Your task to perform on an android device: toggle notifications settings in the gmail app Image 0: 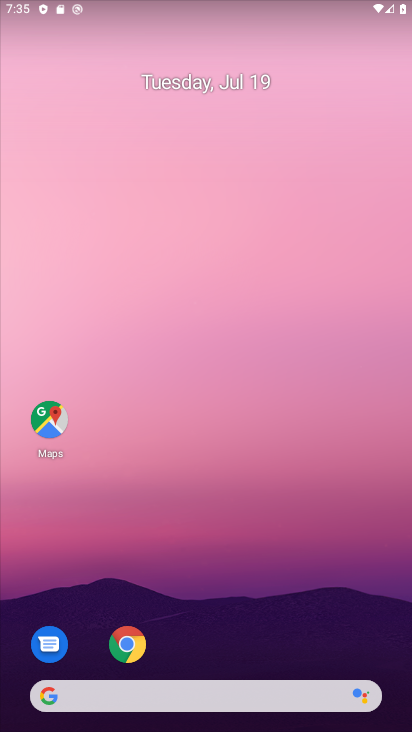
Step 0: drag from (263, 638) to (184, 248)
Your task to perform on an android device: toggle notifications settings in the gmail app Image 1: 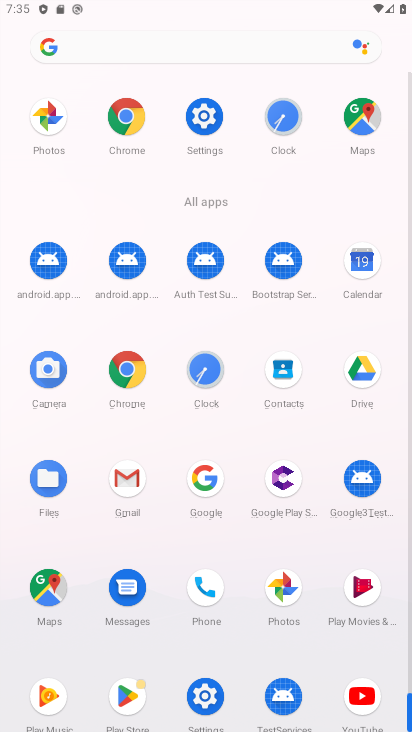
Step 1: click (124, 479)
Your task to perform on an android device: toggle notifications settings in the gmail app Image 2: 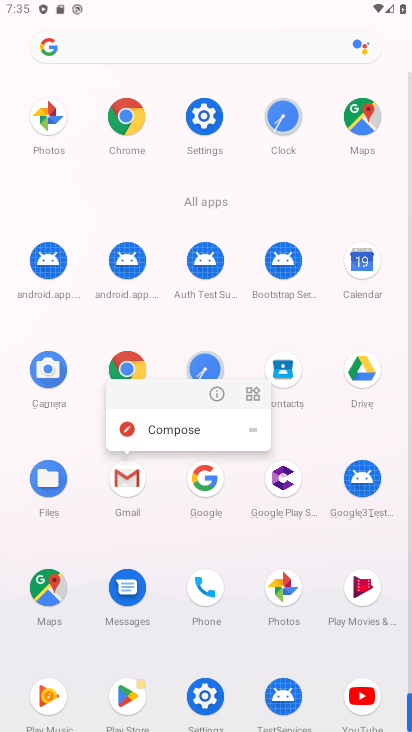
Step 2: click (125, 484)
Your task to perform on an android device: toggle notifications settings in the gmail app Image 3: 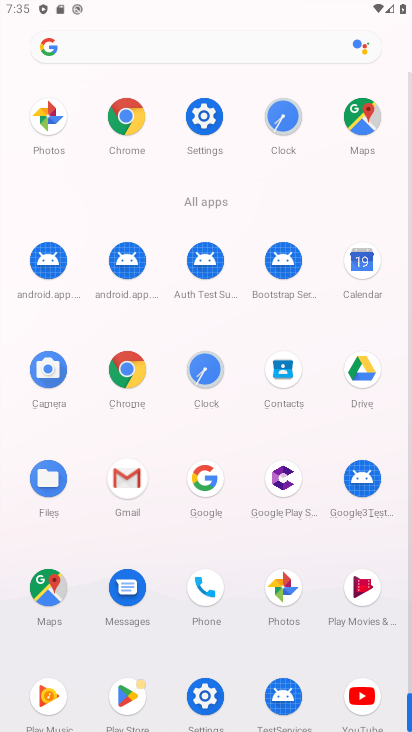
Step 3: click (125, 484)
Your task to perform on an android device: toggle notifications settings in the gmail app Image 4: 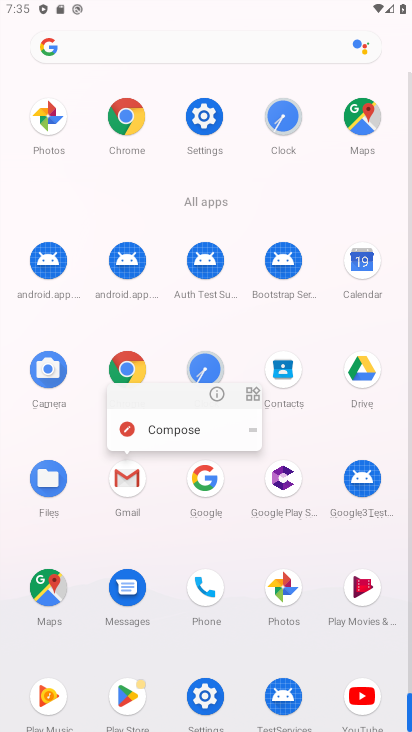
Step 4: click (123, 484)
Your task to perform on an android device: toggle notifications settings in the gmail app Image 5: 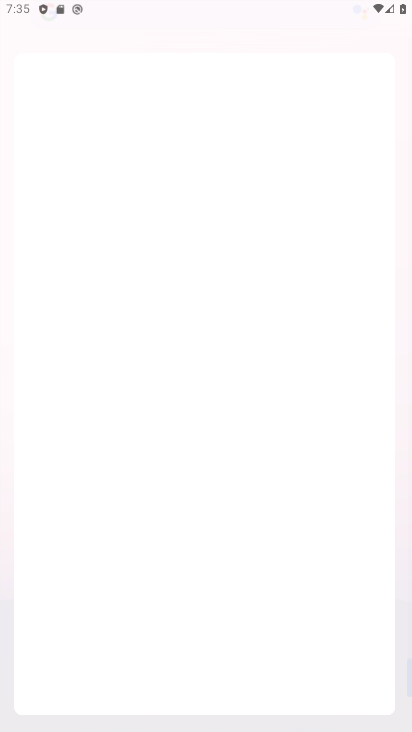
Step 5: click (123, 483)
Your task to perform on an android device: toggle notifications settings in the gmail app Image 6: 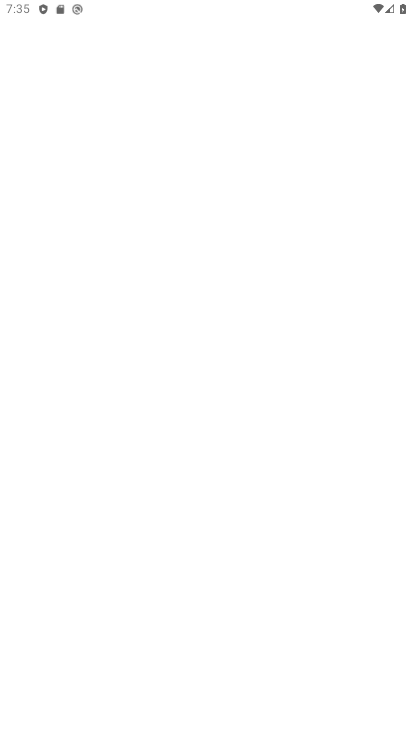
Step 6: click (122, 481)
Your task to perform on an android device: toggle notifications settings in the gmail app Image 7: 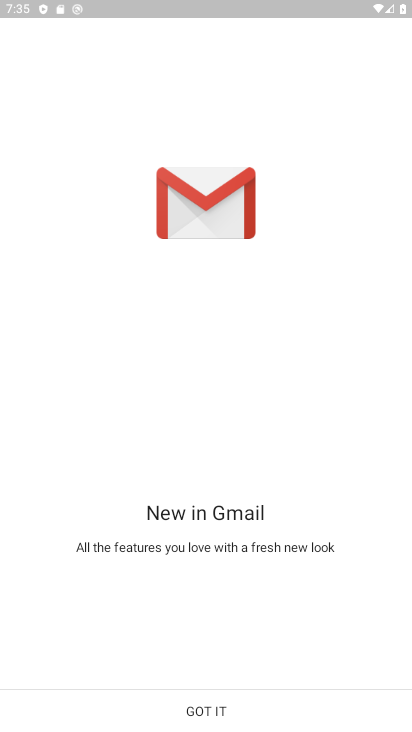
Step 7: click (227, 698)
Your task to perform on an android device: toggle notifications settings in the gmail app Image 8: 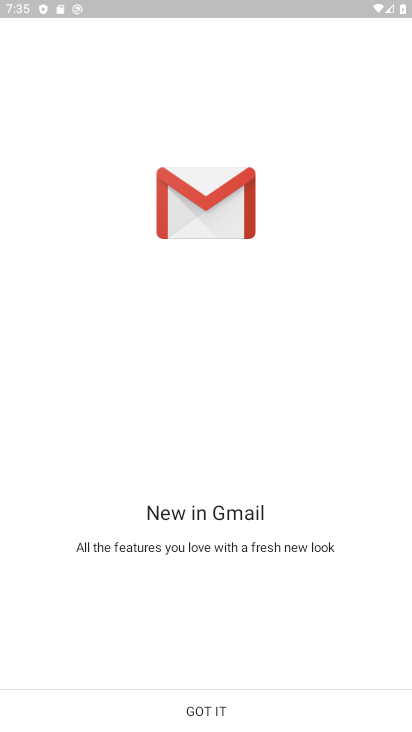
Step 8: click (227, 698)
Your task to perform on an android device: toggle notifications settings in the gmail app Image 9: 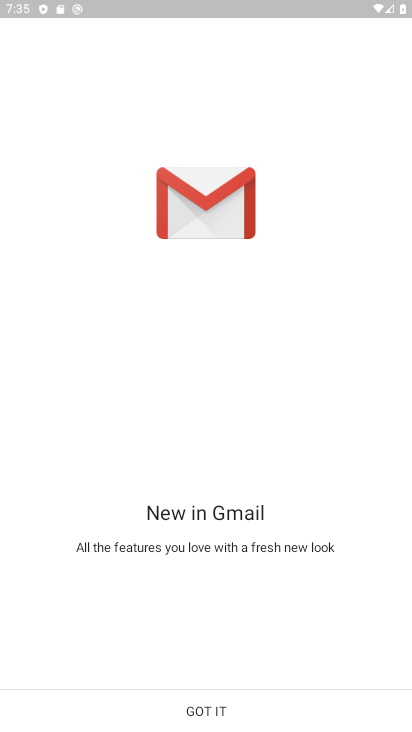
Step 9: click (227, 701)
Your task to perform on an android device: toggle notifications settings in the gmail app Image 10: 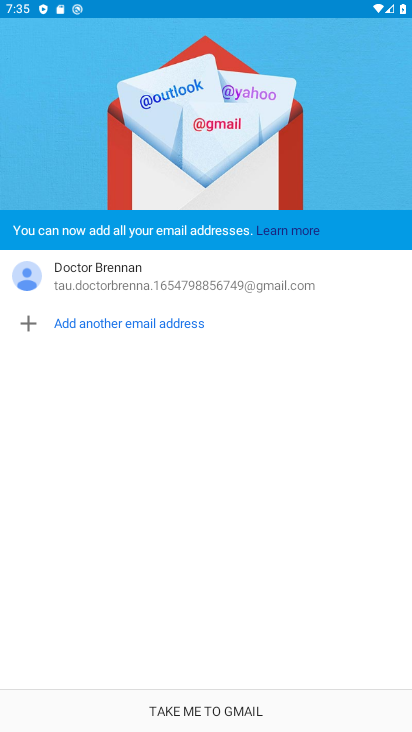
Step 10: click (233, 701)
Your task to perform on an android device: toggle notifications settings in the gmail app Image 11: 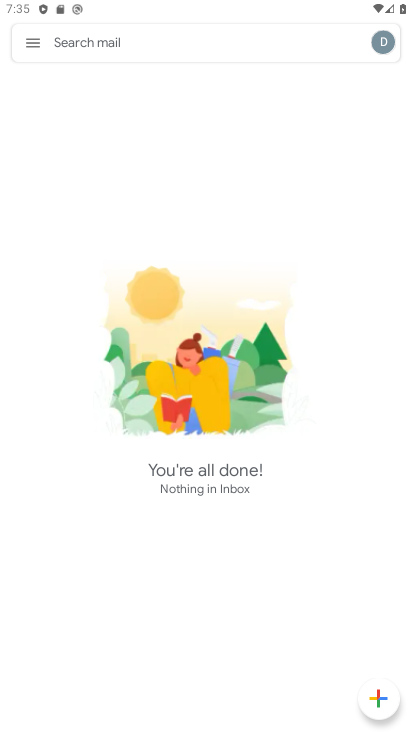
Step 11: click (30, 49)
Your task to perform on an android device: toggle notifications settings in the gmail app Image 12: 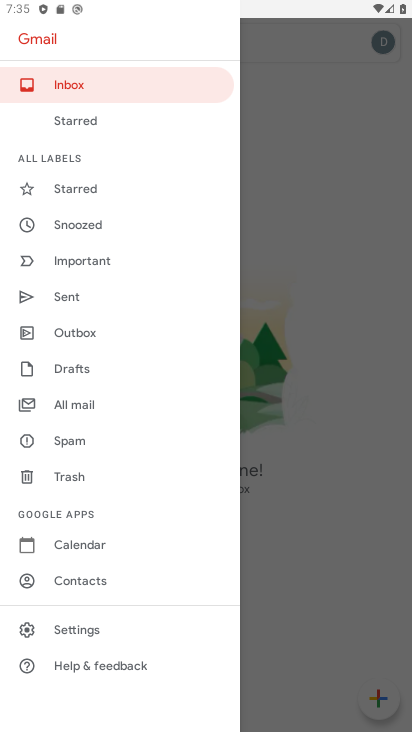
Step 12: click (82, 629)
Your task to perform on an android device: toggle notifications settings in the gmail app Image 13: 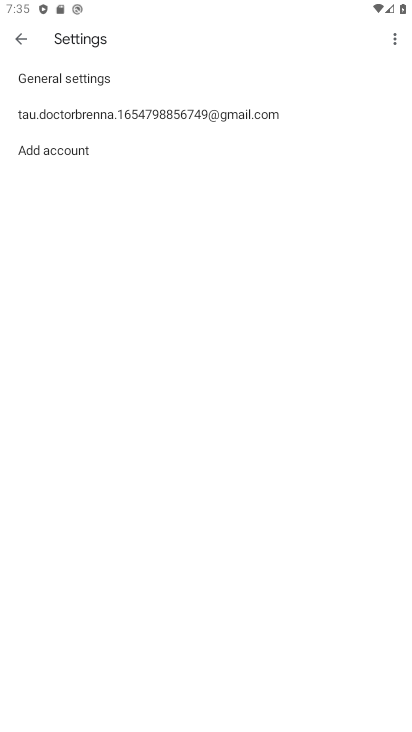
Step 13: click (97, 122)
Your task to perform on an android device: toggle notifications settings in the gmail app Image 14: 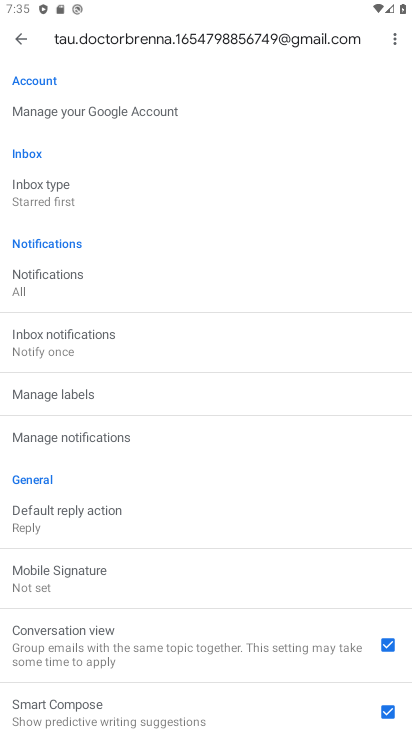
Step 14: click (30, 276)
Your task to perform on an android device: toggle notifications settings in the gmail app Image 15: 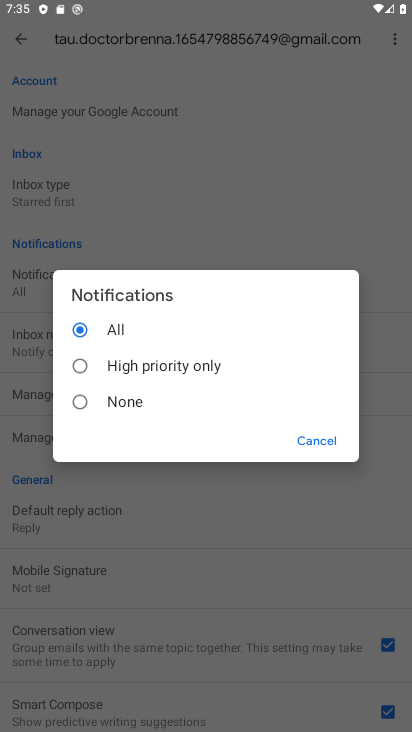
Step 15: click (73, 362)
Your task to perform on an android device: toggle notifications settings in the gmail app Image 16: 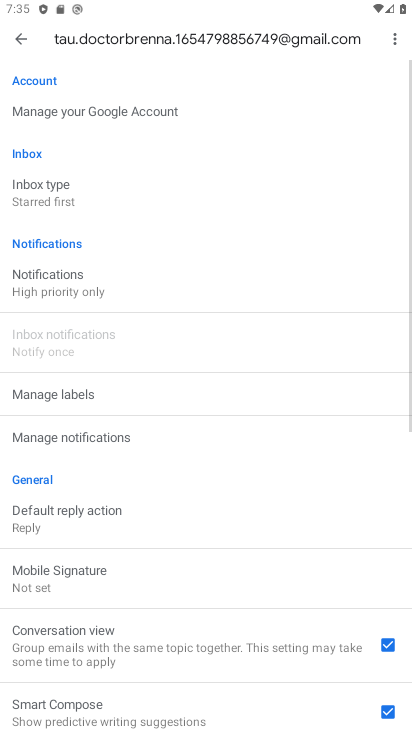
Step 16: task complete